Your task to perform on an android device: Go to wifi settings Image 0: 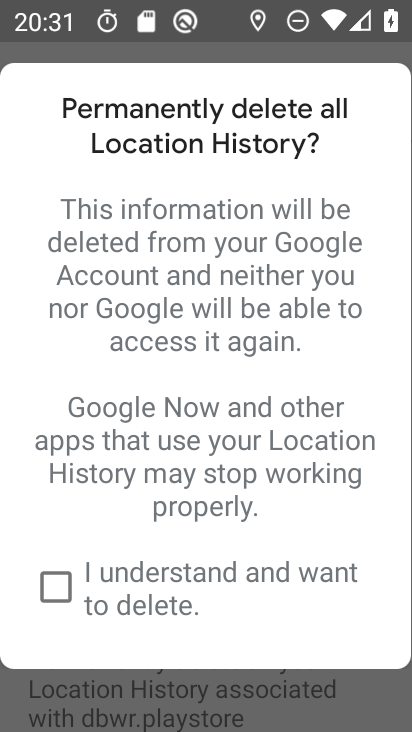
Step 0: press home button
Your task to perform on an android device: Go to wifi settings Image 1: 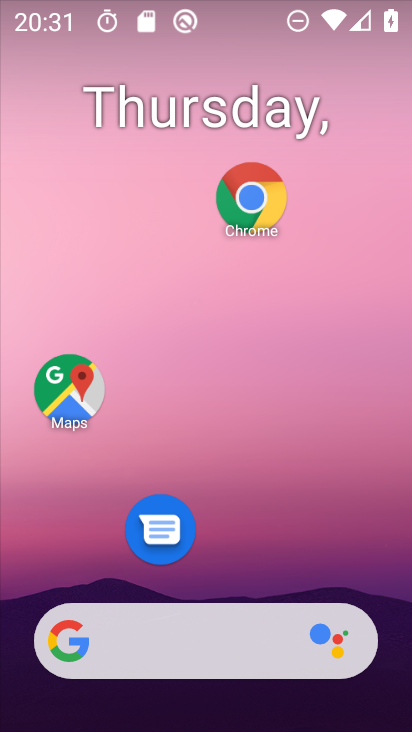
Step 1: drag from (206, 571) to (188, 69)
Your task to perform on an android device: Go to wifi settings Image 2: 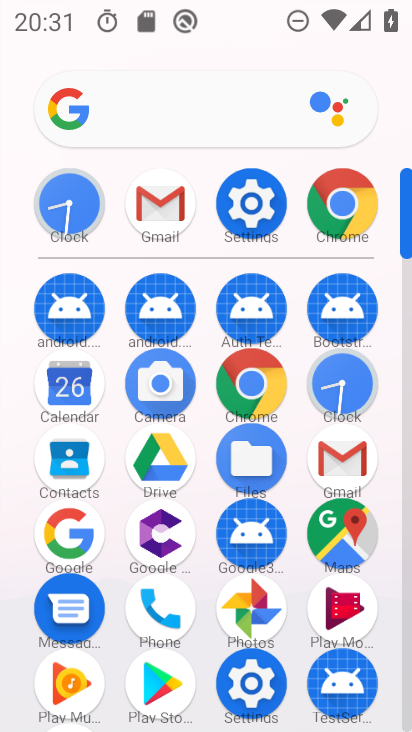
Step 2: click (263, 217)
Your task to perform on an android device: Go to wifi settings Image 3: 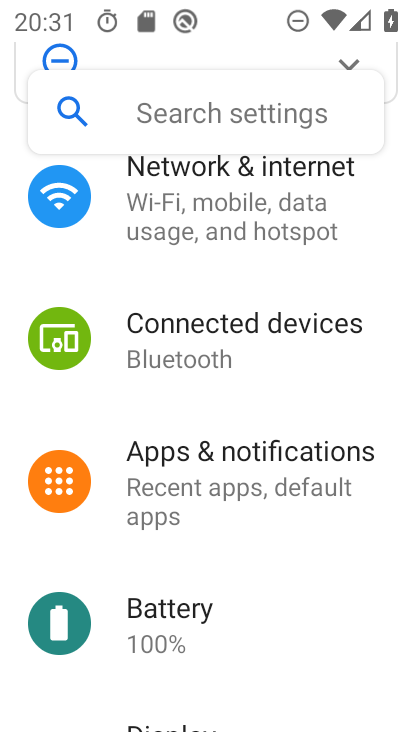
Step 3: click (260, 215)
Your task to perform on an android device: Go to wifi settings Image 4: 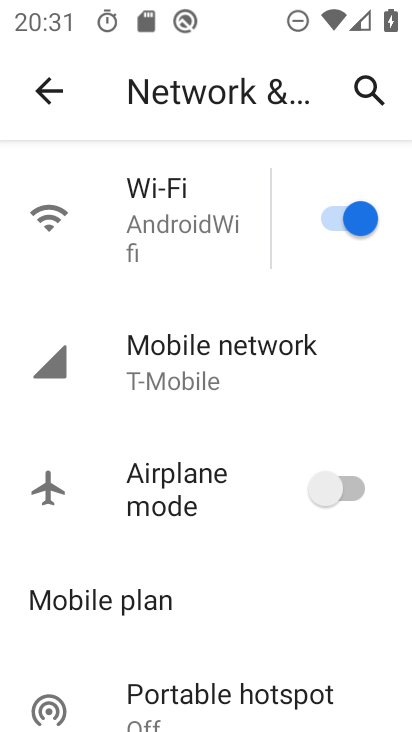
Step 4: click (245, 224)
Your task to perform on an android device: Go to wifi settings Image 5: 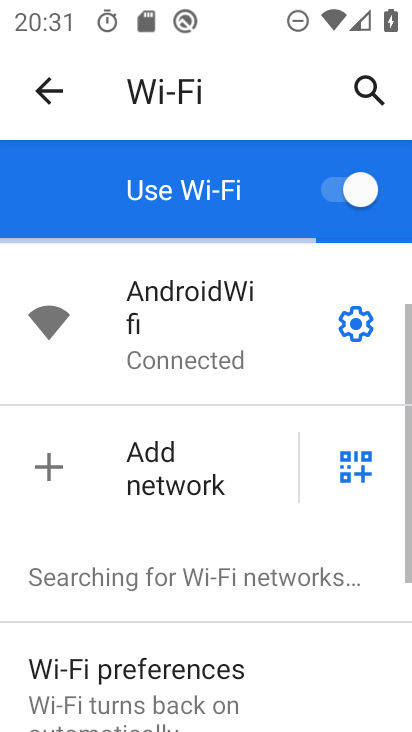
Step 5: task complete